Your task to perform on an android device: all mails in gmail Image 0: 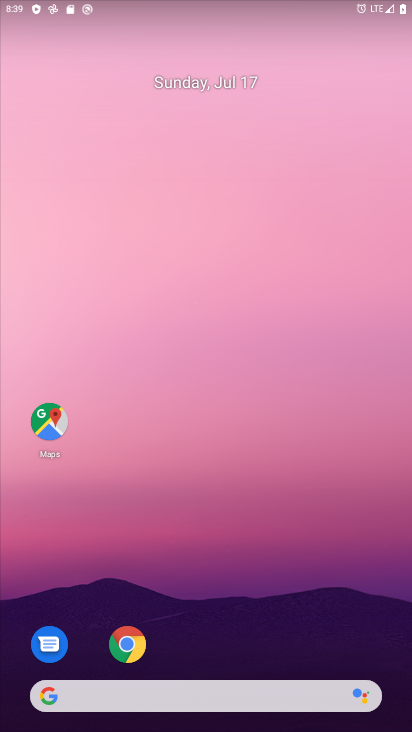
Step 0: drag from (195, 628) to (97, 305)
Your task to perform on an android device: all mails in gmail Image 1: 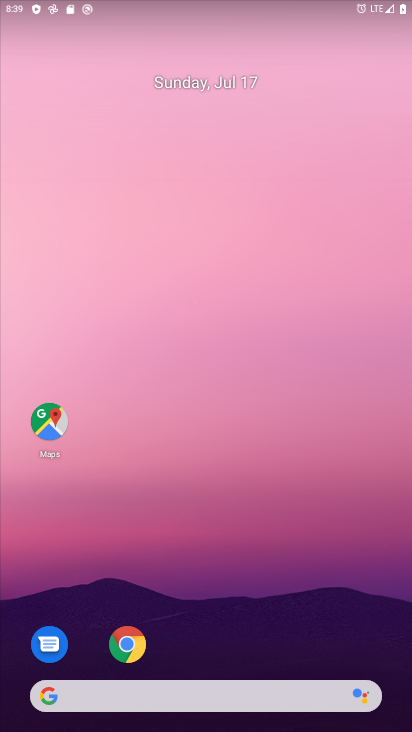
Step 1: drag from (281, 704) to (193, 101)
Your task to perform on an android device: all mails in gmail Image 2: 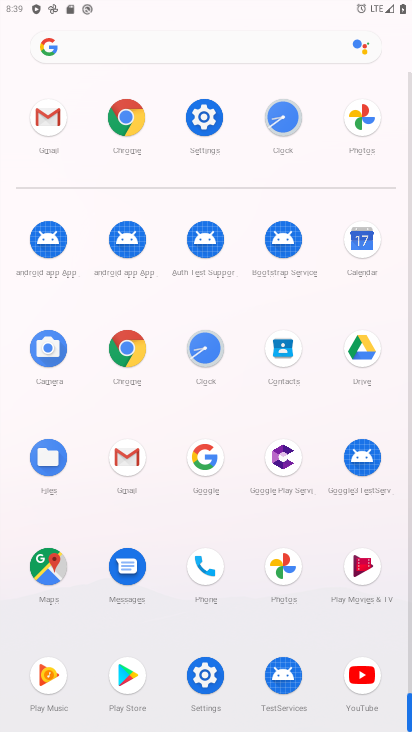
Step 2: click (124, 454)
Your task to perform on an android device: all mails in gmail Image 3: 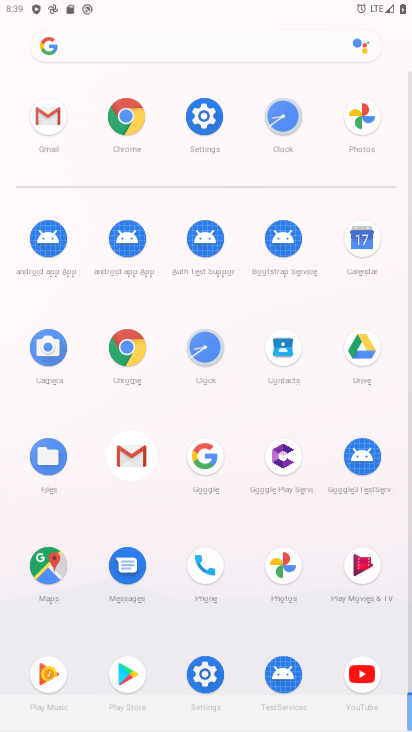
Step 3: click (114, 464)
Your task to perform on an android device: all mails in gmail Image 4: 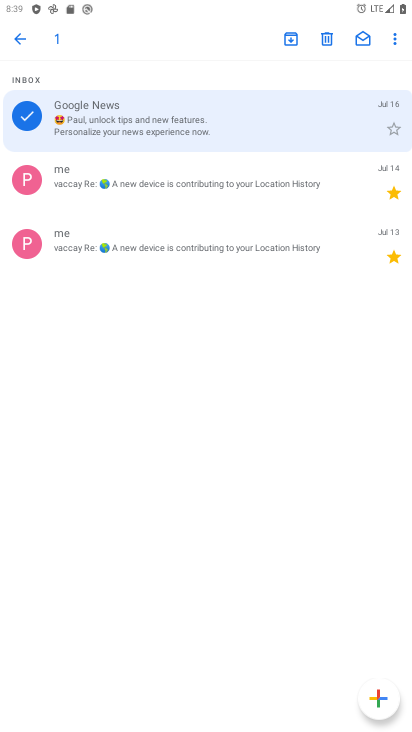
Step 4: click (116, 465)
Your task to perform on an android device: all mails in gmail Image 5: 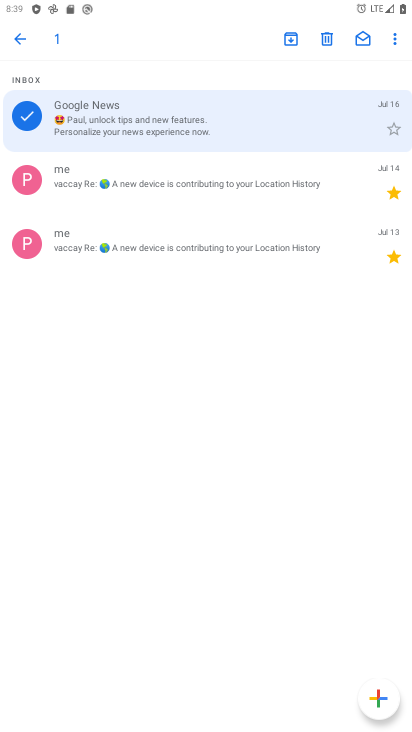
Step 5: click (17, 37)
Your task to perform on an android device: all mails in gmail Image 6: 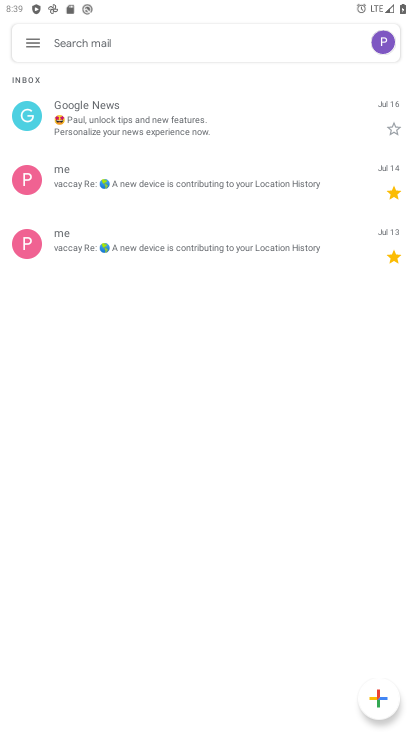
Step 6: task complete